Your task to perform on an android device: Clear the cart on costco.com. Search for dell xps on costco.com, select the first entry, and add it to the cart. Image 0: 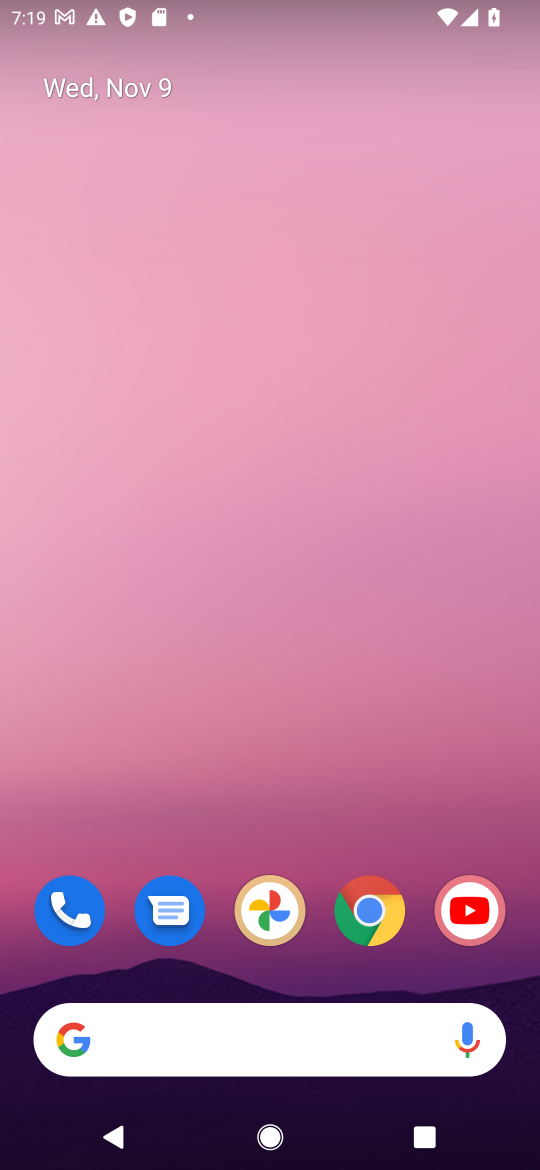
Step 0: click (374, 916)
Your task to perform on an android device: Clear the cart on costco.com. Search for dell xps on costco.com, select the first entry, and add it to the cart. Image 1: 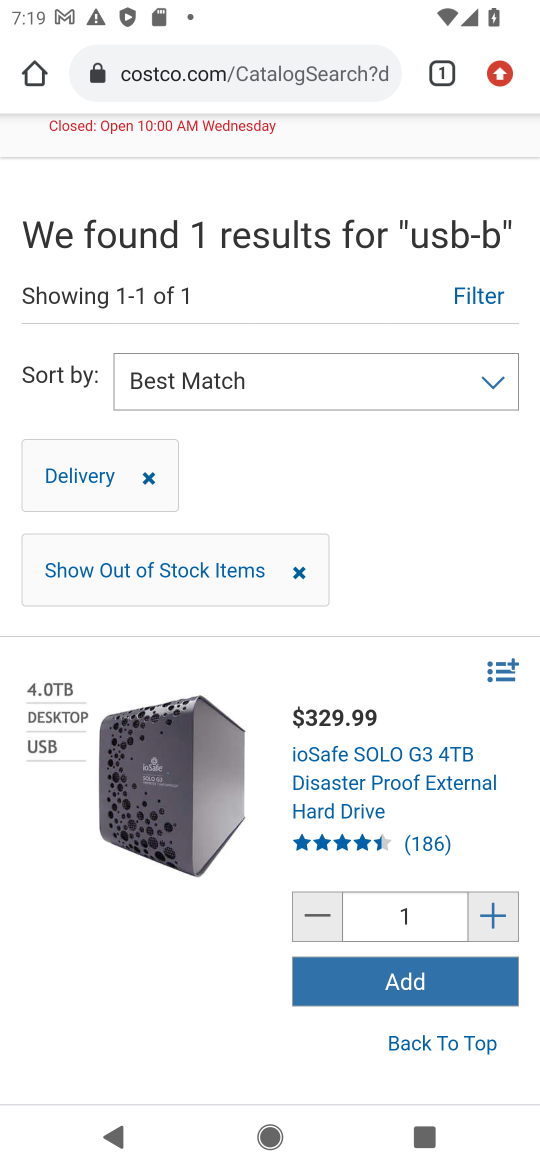
Step 1: drag from (333, 489) to (323, 718)
Your task to perform on an android device: Clear the cart on costco.com. Search for dell xps on costco.com, select the first entry, and add it to the cart. Image 2: 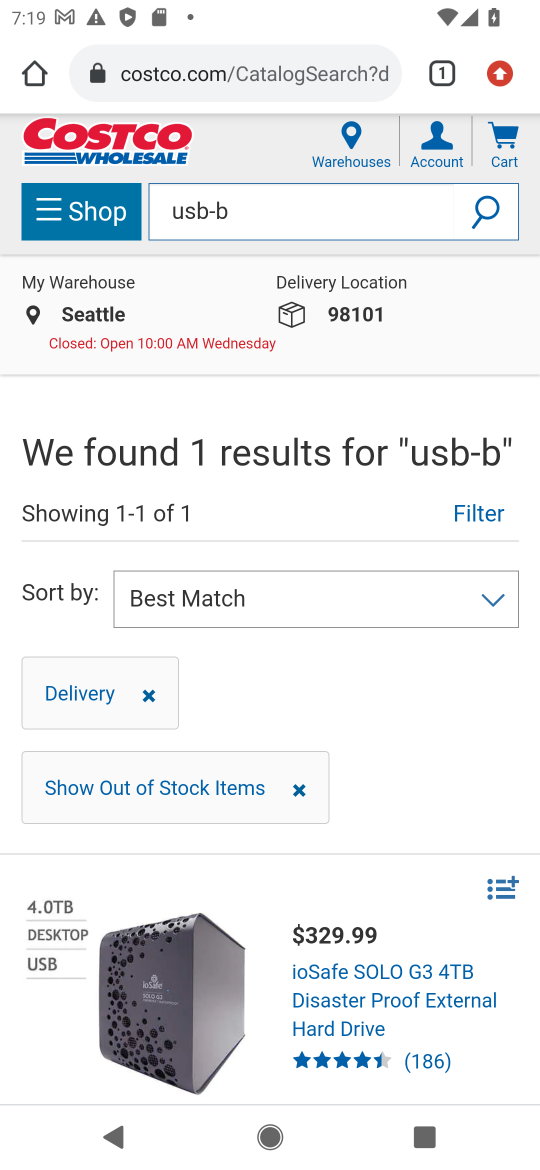
Step 2: click (504, 145)
Your task to perform on an android device: Clear the cart on costco.com. Search for dell xps on costco.com, select the first entry, and add it to the cart. Image 3: 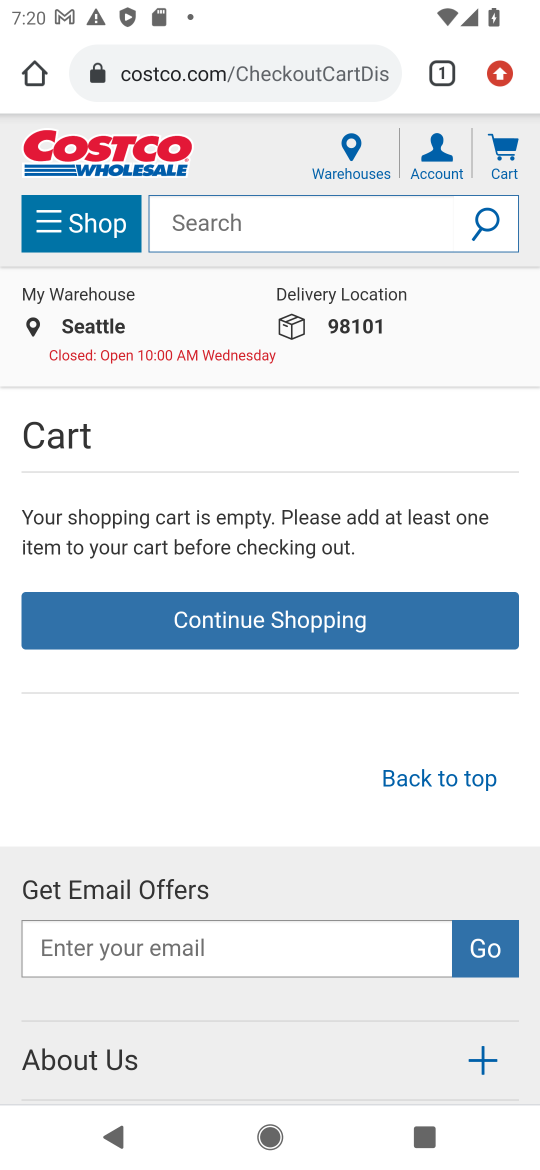
Step 3: click (355, 219)
Your task to perform on an android device: Clear the cart on costco.com. Search for dell xps on costco.com, select the first entry, and add it to the cart. Image 4: 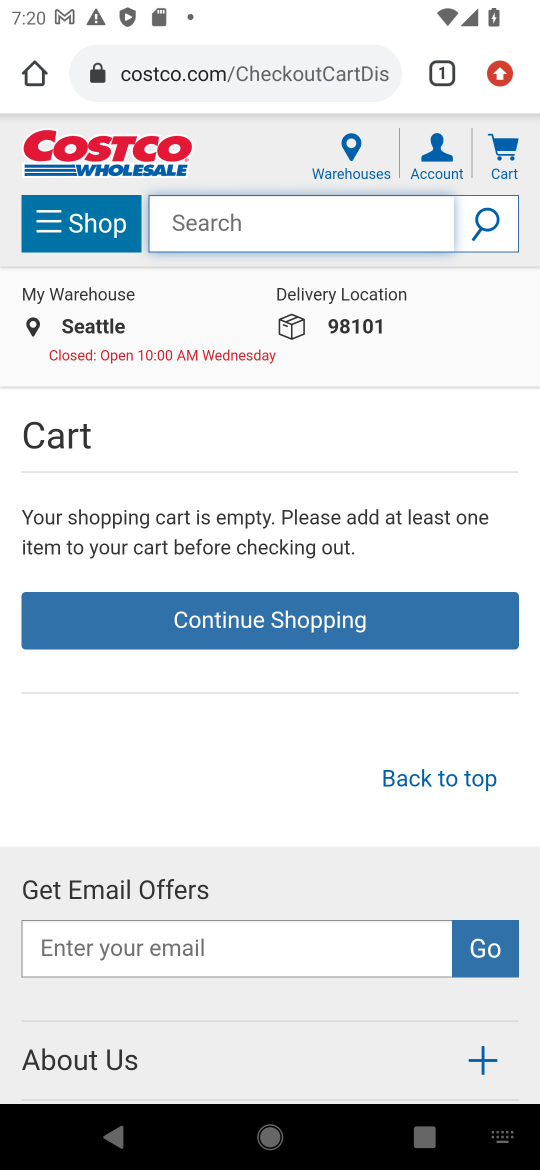
Step 4: type "dell xps "
Your task to perform on an android device: Clear the cart on costco.com. Search for dell xps on costco.com, select the first entry, and add it to the cart. Image 5: 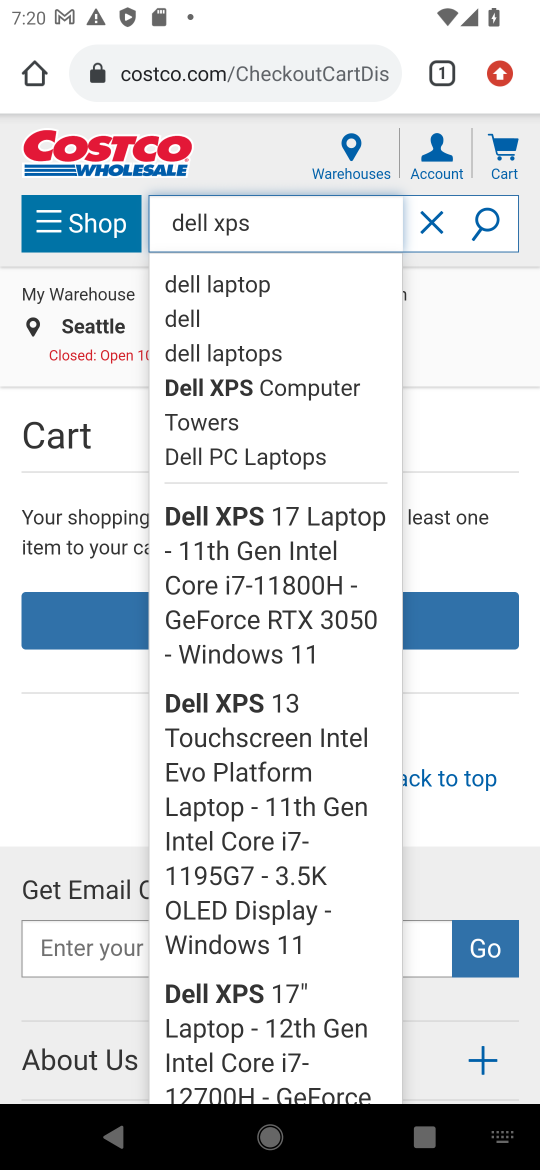
Step 5: click (487, 223)
Your task to perform on an android device: Clear the cart on costco.com. Search for dell xps on costco.com, select the first entry, and add it to the cart. Image 6: 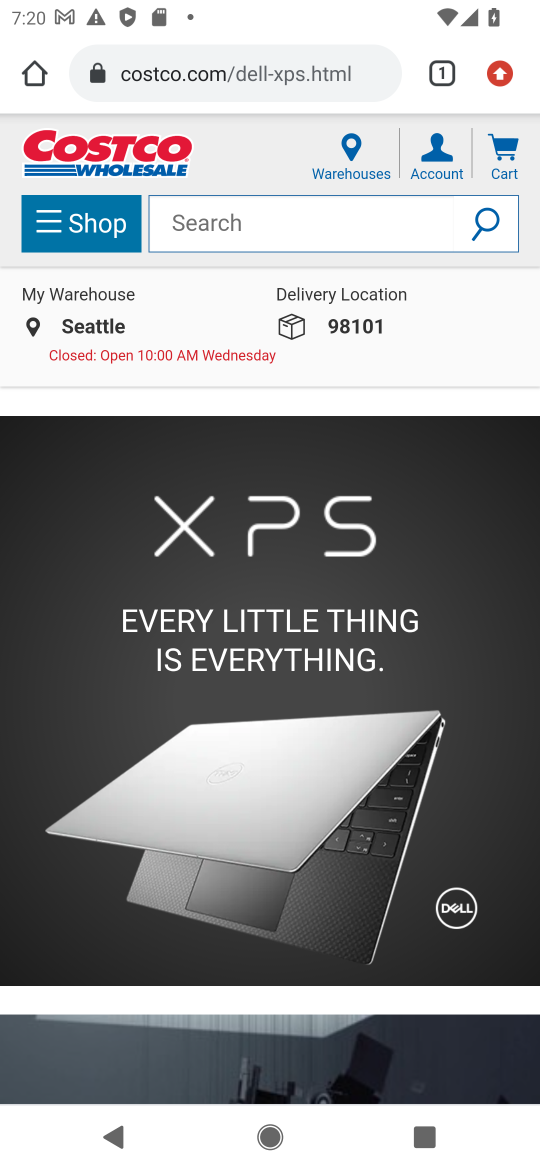
Step 6: task complete